Your task to perform on an android device: Open calendar and show me the second week of next month Image 0: 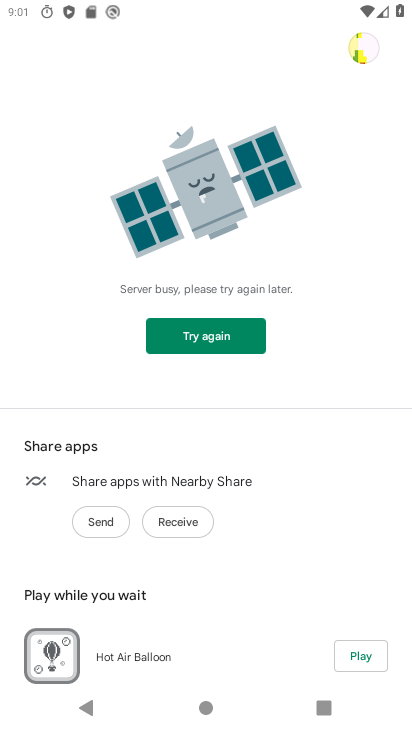
Step 0: press home button
Your task to perform on an android device: Open calendar and show me the second week of next month Image 1: 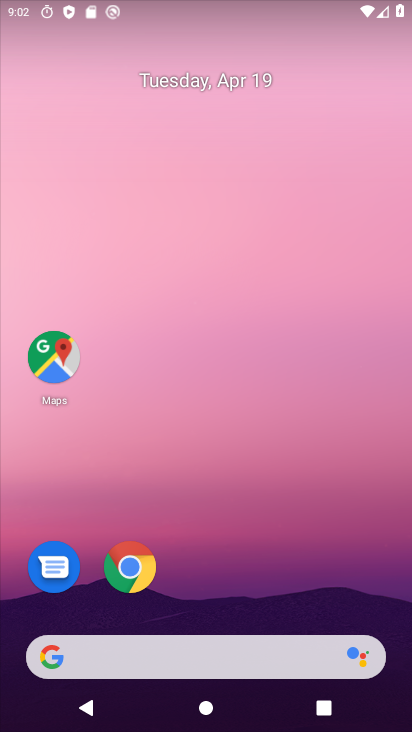
Step 1: drag from (205, 728) to (205, 3)
Your task to perform on an android device: Open calendar and show me the second week of next month Image 2: 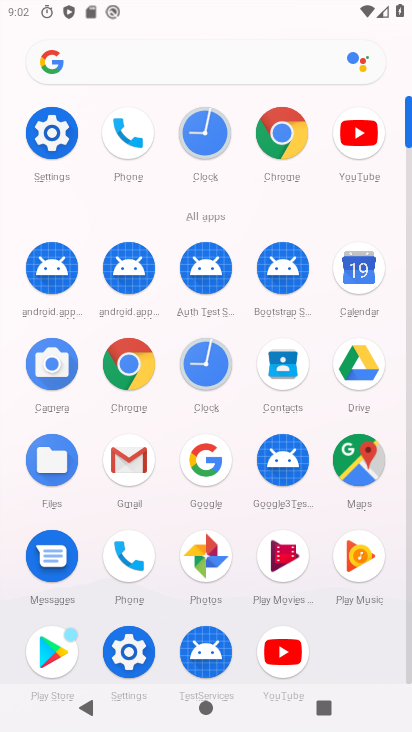
Step 2: click (363, 264)
Your task to perform on an android device: Open calendar and show me the second week of next month Image 3: 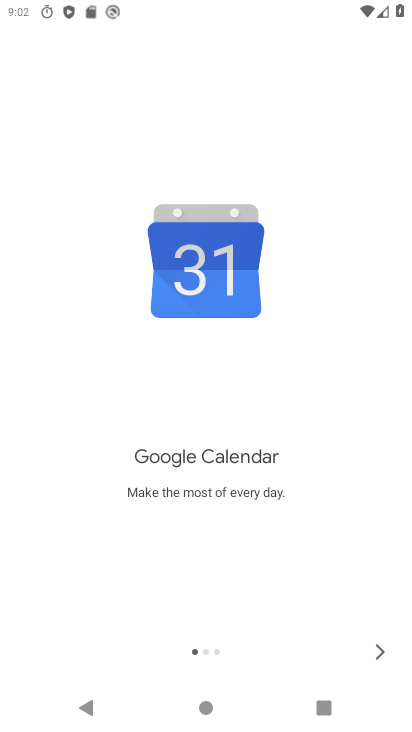
Step 3: click (376, 651)
Your task to perform on an android device: Open calendar and show me the second week of next month Image 4: 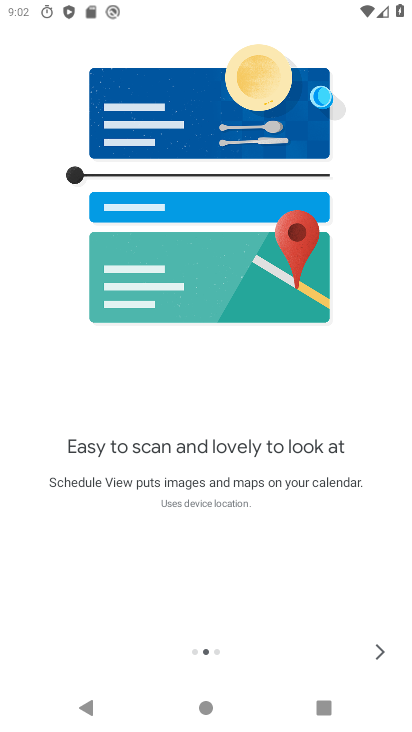
Step 4: click (376, 651)
Your task to perform on an android device: Open calendar and show me the second week of next month Image 5: 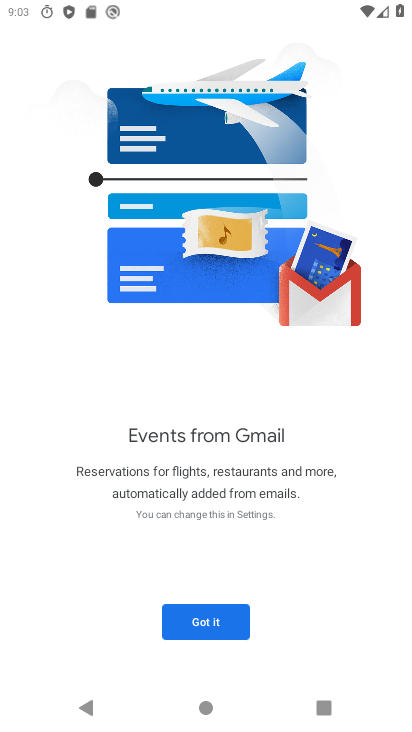
Step 5: click (204, 623)
Your task to perform on an android device: Open calendar and show me the second week of next month Image 6: 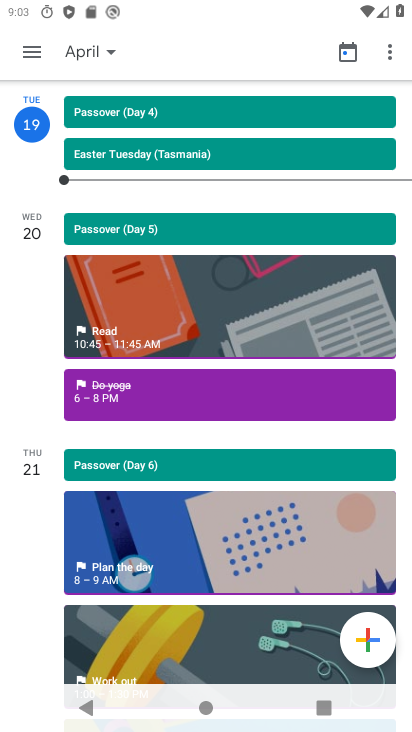
Step 6: click (86, 47)
Your task to perform on an android device: Open calendar and show me the second week of next month Image 7: 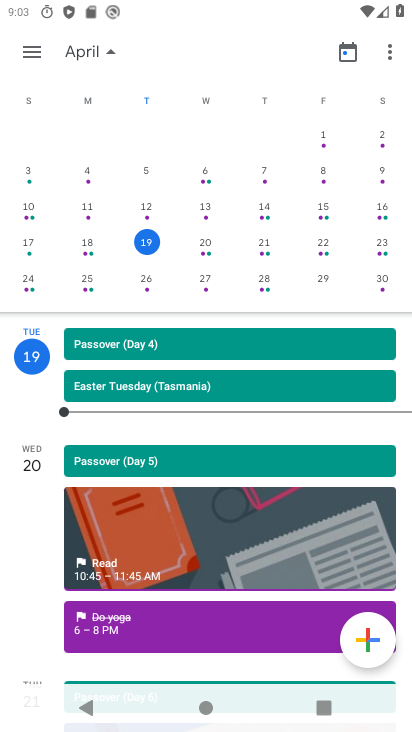
Step 7: drag from (342, 220) to (5, 256)
Your task to perform on an android device: Open calendar and show me the second week of next month Image 8: 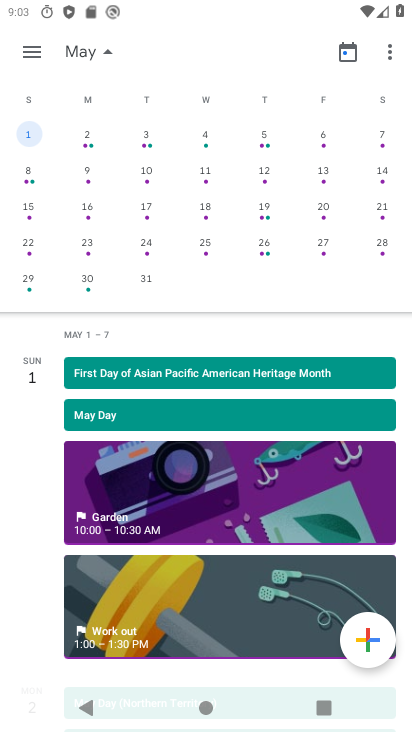
Step 8: click (87, 165)
Your task to perform on an android device: Open calendar and show me the second week of next month Image 9: 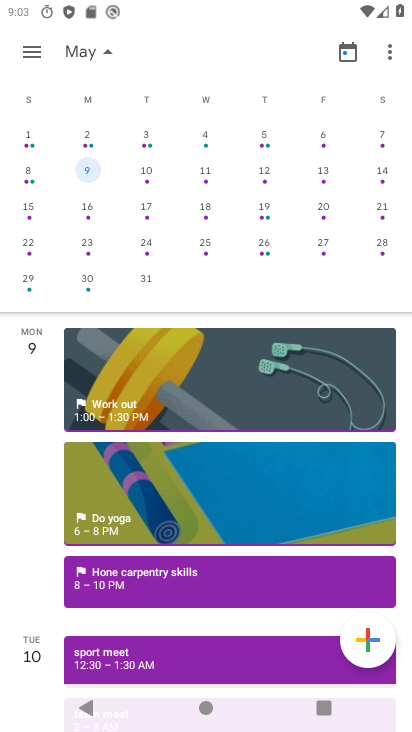
Step 9: task complete